Your task to perform on an android device: Go to calendar. Show me events next week Image 0: 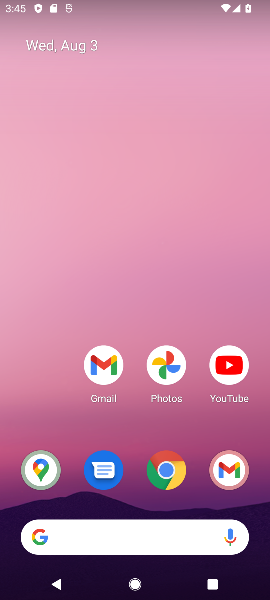
Step 0: drag from (205, 493) to (209, 27)
Your task to perform on an android device: Go to calendar. Show me events next week Image 1: 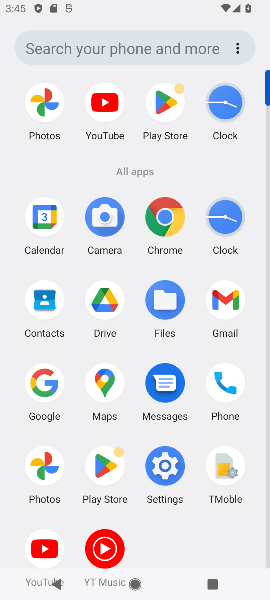
Step 1: click (55, 229)
Your task to perform on an android device: Go to calendar. Show me events next week Image 2: 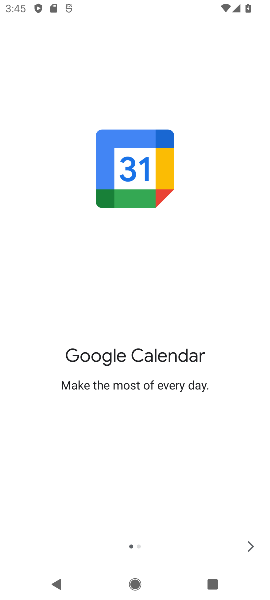
Step 2: click (248, 548)
Your task to perform on an android device: Go to calendar. Show me events next week Image 3: 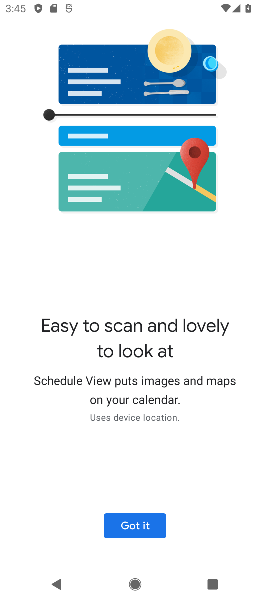
Step 3: click (248, 548)
Your task to perform on an android device: Go to calendar. Show me events next week Image 4: 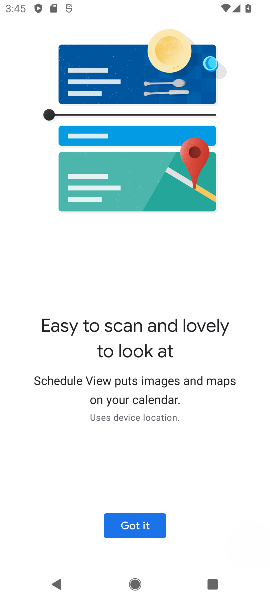
Step 4: click (118, 523)
Your task to perform on an android device: Go to calendar. Show me events next week Image 5: 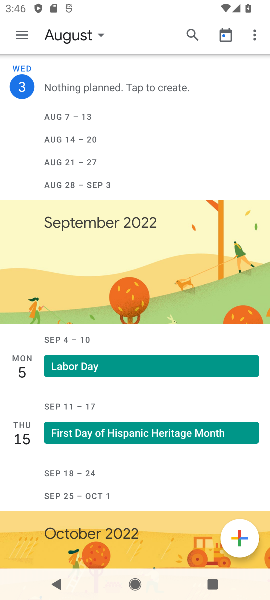
Step 5: click (80, 37)
Your task to perform on an android device: Go to calendar. Show me events next week Image 6: 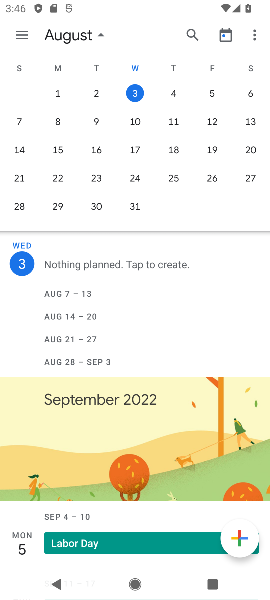
Step 6: click (17, 120)
Your task to perform on an android device: Go to calendar. Show me events next week Image 7: 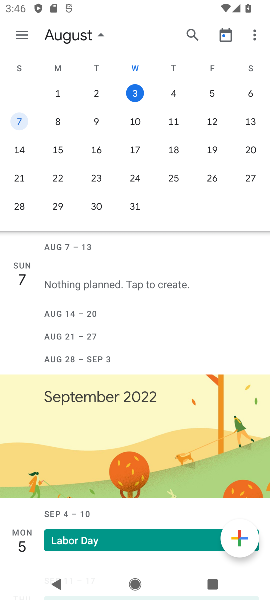
Step 7: click (56, 122)
Your task to perform on an android device: Go to calendar. Show me events next week Image 8: 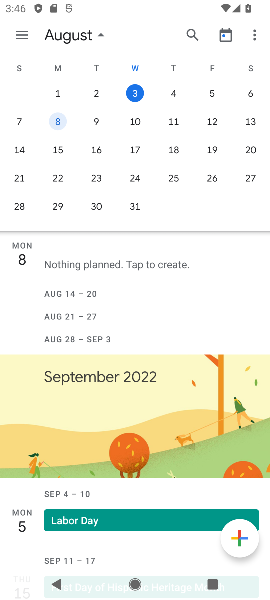
Step 8: click (96, 120)
Your task to perform on an android device: Go to calendar. Show me events next week Image 9: 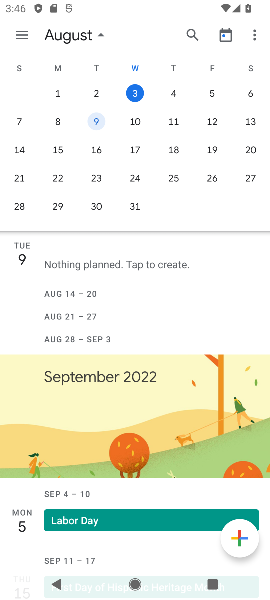
Step 9: click (135, 121)
Your task to perform on an android device: Go to calendar. Show me events next week Image 10: 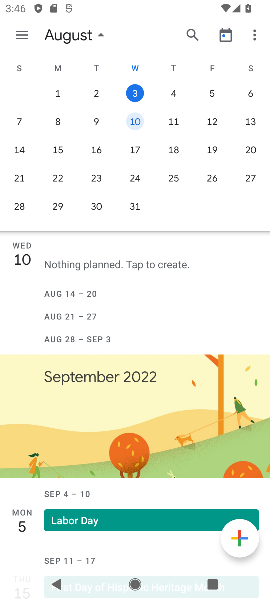
Step 10: click (175, 126)
Your task to perform on an android device: Go to calendar. Show me events next week Image 11: 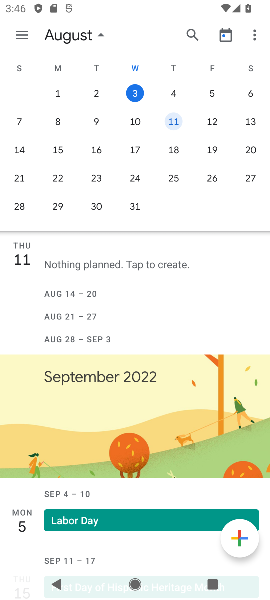
Step 11: click (219, 125)
Your task to perform on an android device: Go to calendar. Show me events next week Image 12: 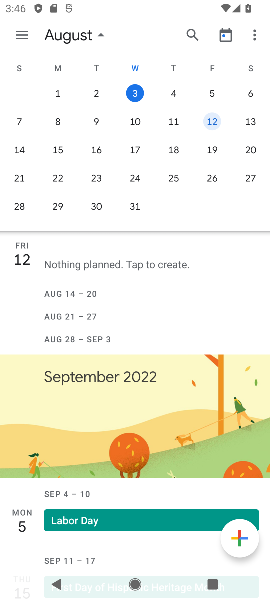
Step 12: click (253, 125)
Your task to perform on an android device: Go to calendar. Show me events next week Image 13: 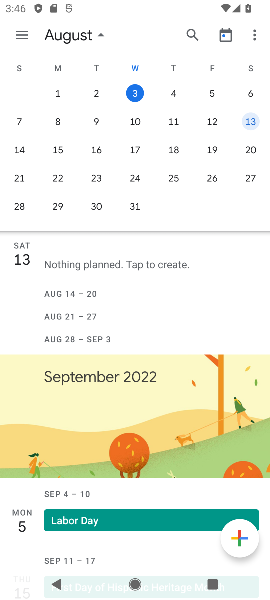
Step 13: task complete